Your task to perform on an android device: turn off priority inbox in the gmail app Image 0: 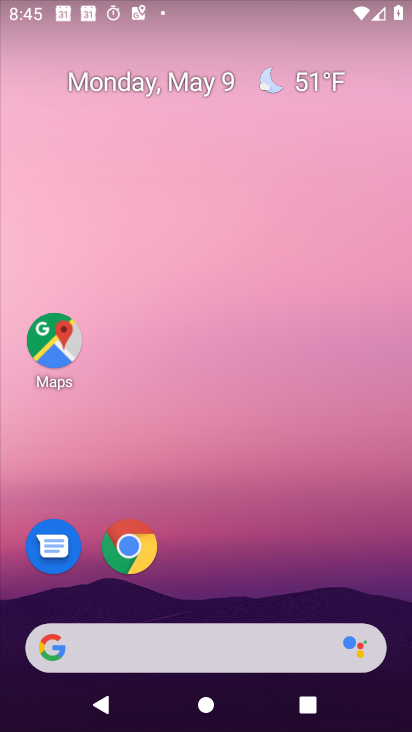
Step 0: drag from (268, 321) to (299, 58)
Your task to perform on an android device: turn off priority inbox in the gmail app Image 1: 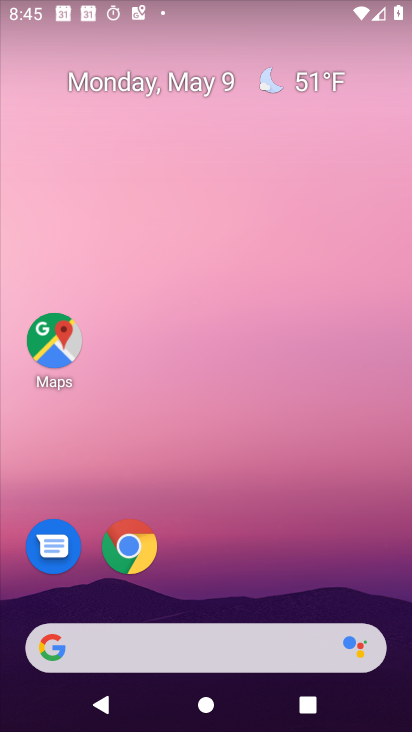
Step 1: drag from (286, 576) to (411, 530)
Your task to perform on an android device: turn off priority inbox in the gmail app Image 2: 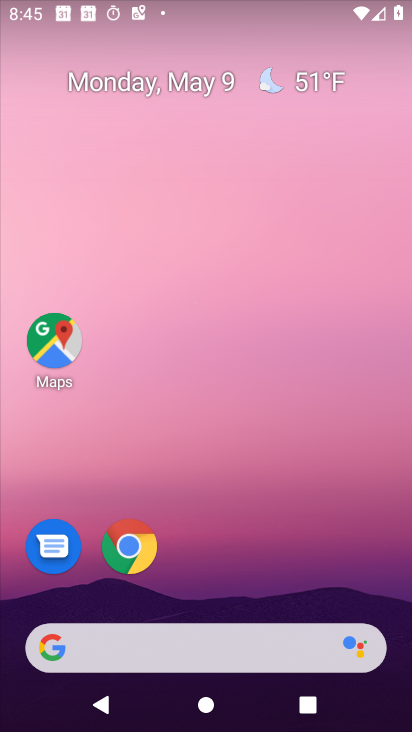
Step 2: drag from (241, 567) to (273, 74)
Your task to perform on an android device: turn off priority inbox in the gmail app Image 3: 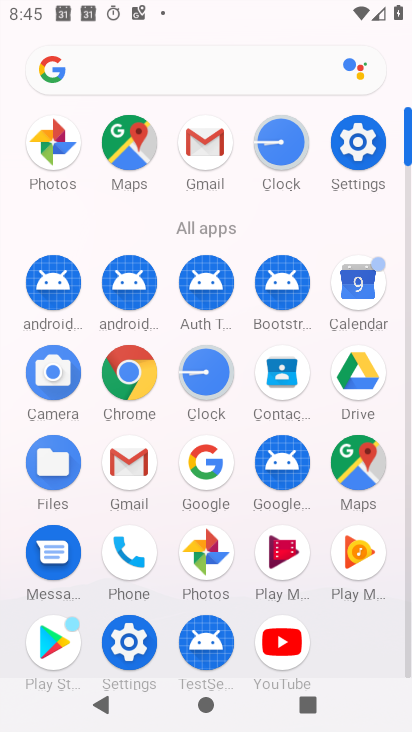
Step 3: click (125, 456)
Your task to perform on an android device: turn off priority inbox in the gmail app Image 4: 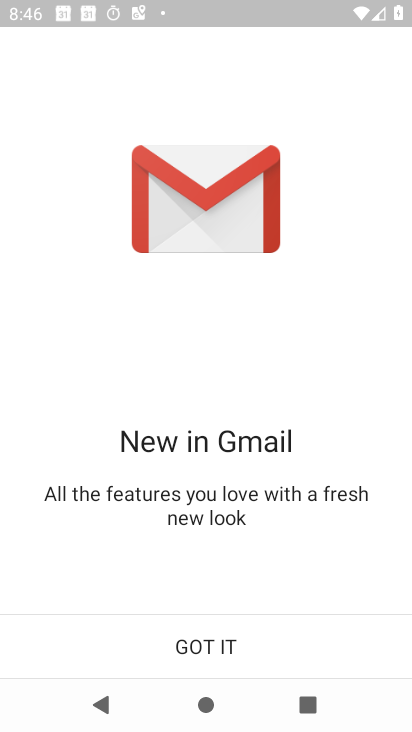
Step 4: click (214, 637)
Your task to perform on an android device: turn off priority inbox in the gmail app Image 5: 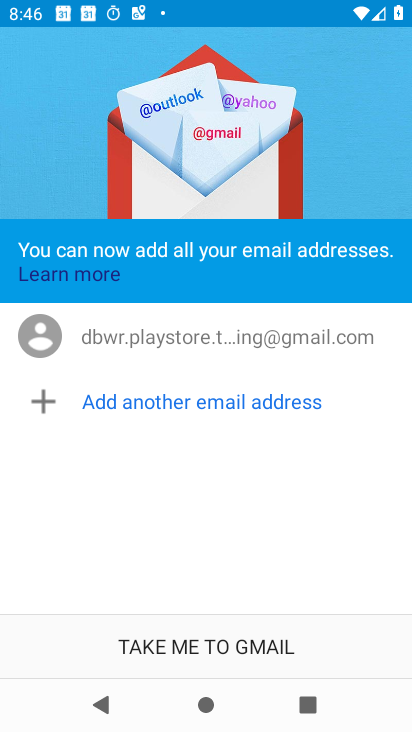
Step 5: click (214, 637)
Your task to perform on an android device: turn off priority inbox in the gmail app Image 6: 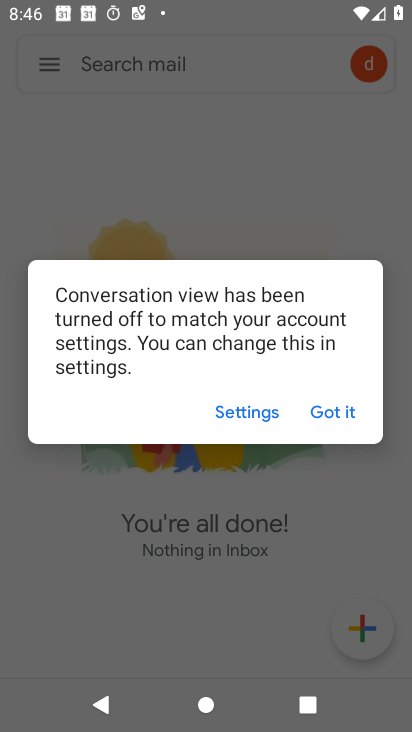
Step 6: click (344, 406)
Your task to perform on an android device: turn off priority inbox in the gmail app Image 7: 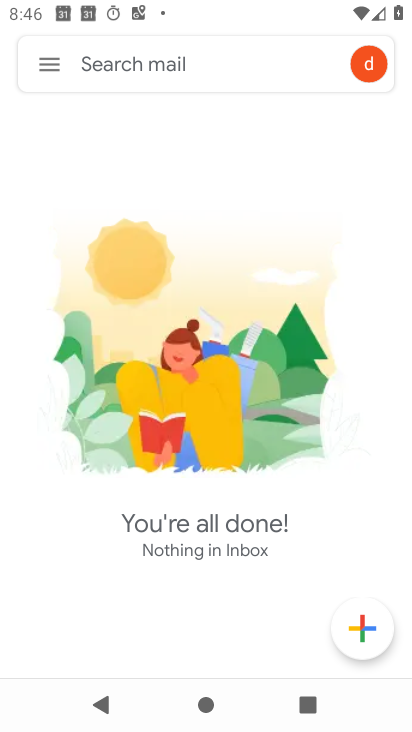
Step 7: click (45, 63)
Your task to perform on an android device: turn off priority inbox in the gmail app Image 8: 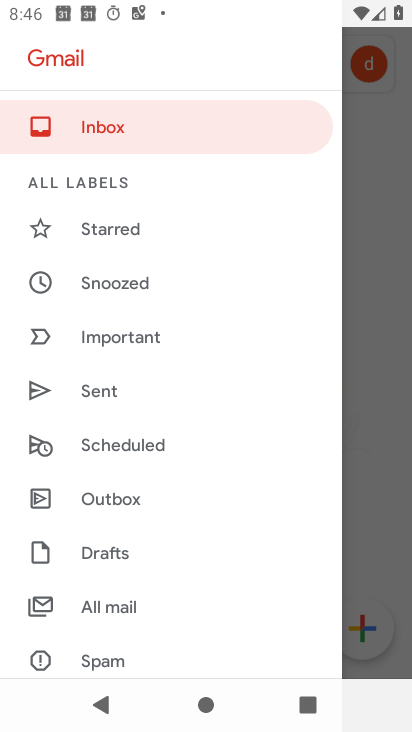
Step 8: drag from (187, 619) to (202, 193)
Your task to perform on an android device: turn off priority inbox in the gmail app Image 9: 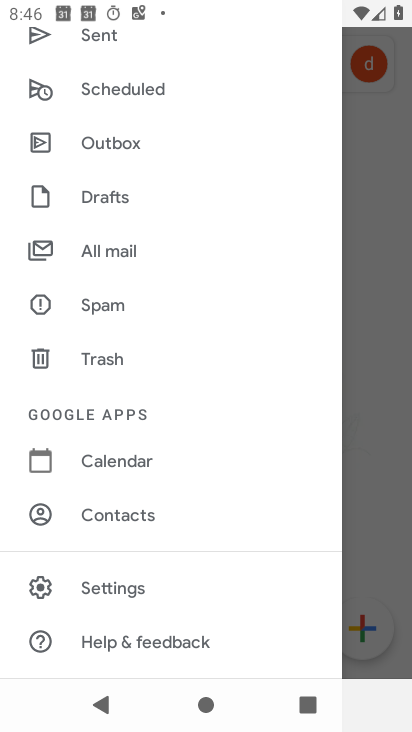
Step 9: click (92, 592)
Your task to perform on an android device: turn off priority inbox in the gmail app Image 10: 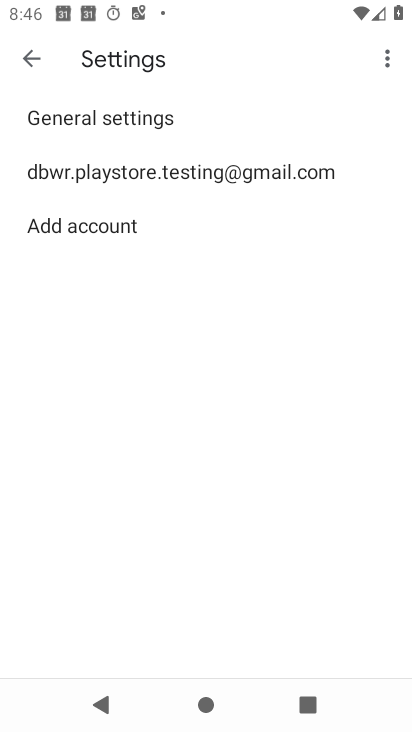
Step 10: click (166, 166)
Your task to perform on an android device: turn off priority inbox in the gmail app Image 11: 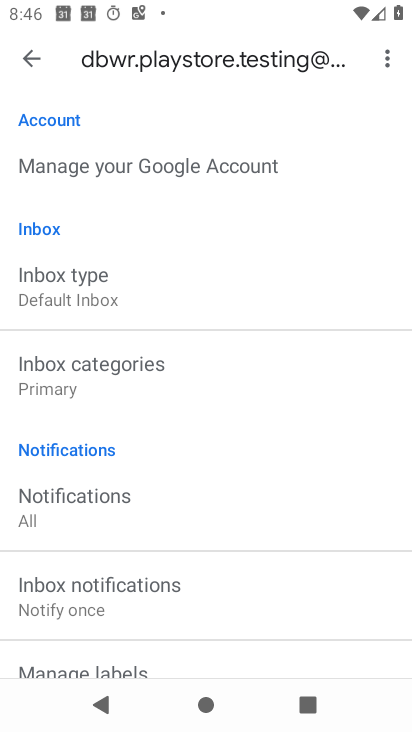
Step 11: click (72, 299)
Your task to perform on an android device: turn off priority inbox in the gmail app Image 12: 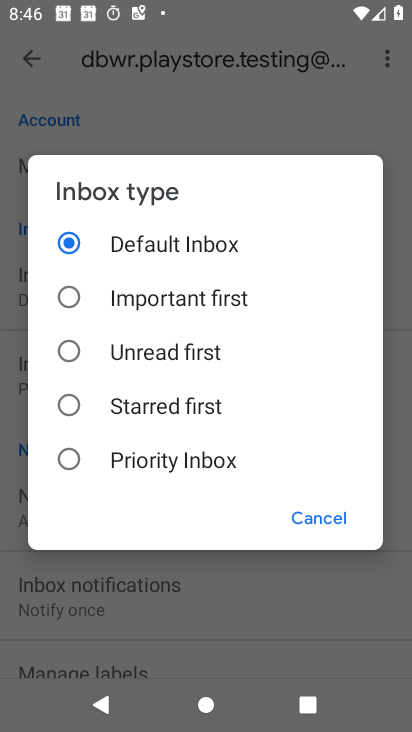
Step 12: click (325, 515)
Your task to perform on an android device: turn off priority inbox in the gmail app Image 13: 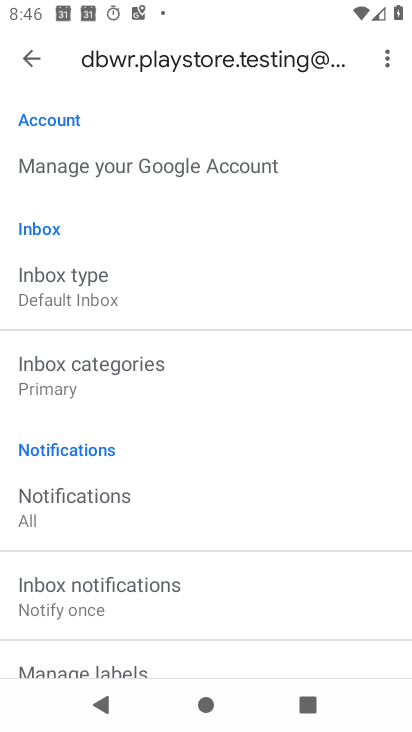
Step 13: task complete